Your task to perform on an android device: Open Android settings Image 0: 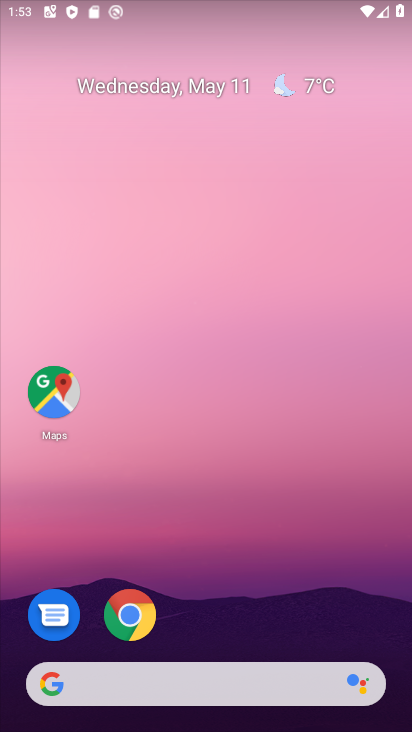
Step 0: drag from (282, 608) to (338, 119)
Your task to perform on an android device: Open Android settings Image 1: 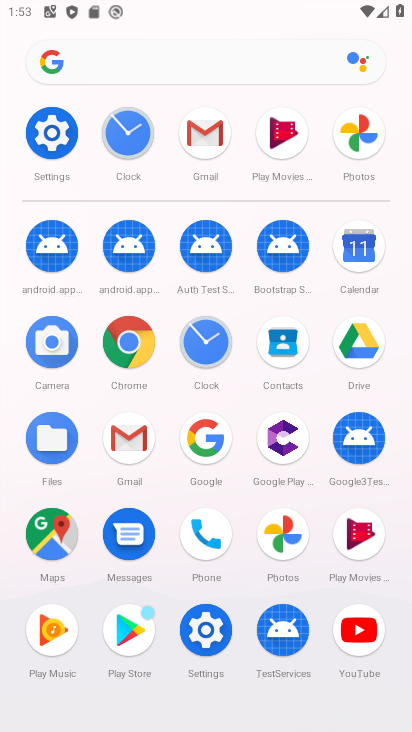
Step 1: click (40, 130)
Your task to perform on an android device: Open Android settings Image 2: 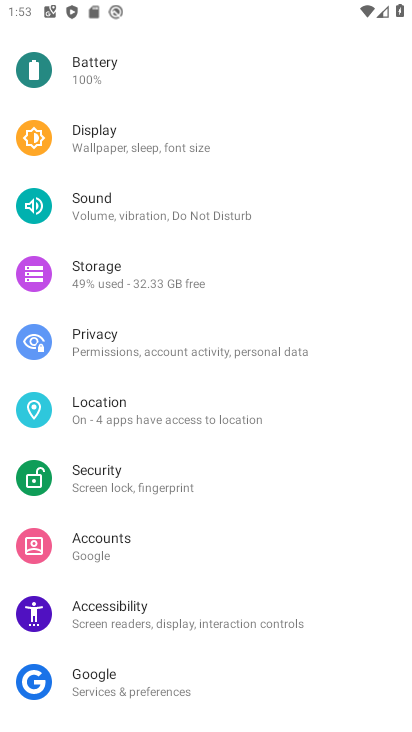
Step 2: task complete